Your task to perform on an android device: Open calendar and show me the fourth week of next month Image 0: 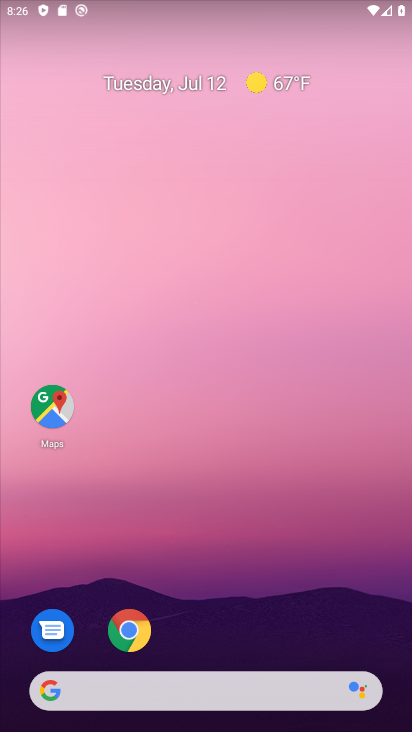
Step 0: drag from (269, 624) to (208, 185)
Your task to perform on an android device: Open calendar and show me the fourth week of next month Image 1: 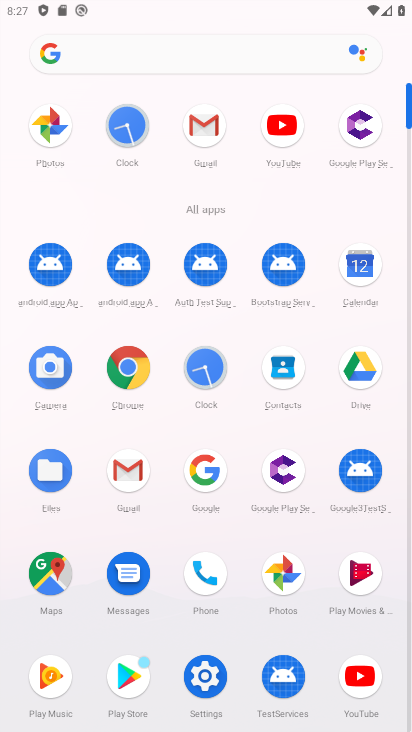
Step 1: click (357, 264)
Your task to perform on an android device: Open calendar and show me the fourth week of next month Image 2: 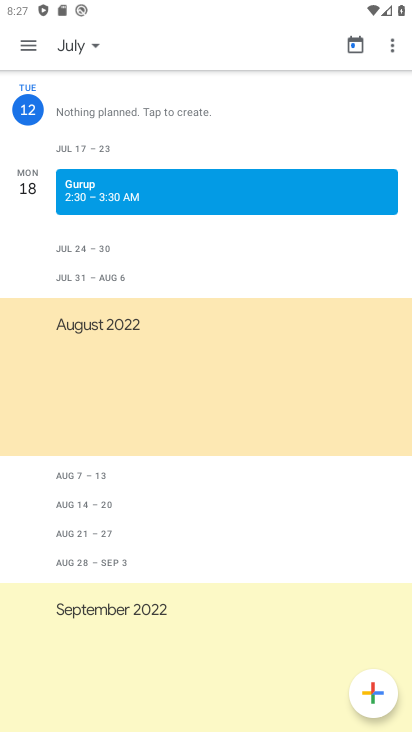
Step 2: click (26, 53)
Your task to perform on an android device: Open calendar and show me the fourth week of next month Image 3: 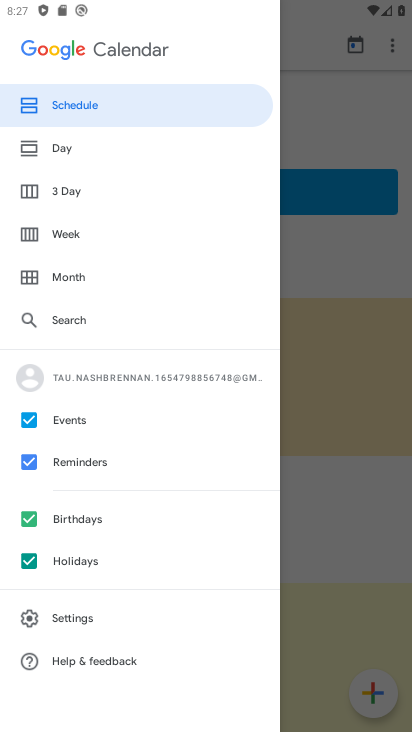
Step 3: click (65, 228)
Your task to perform on an android device: Open calendar and show me the fourth week of next month Image 4: 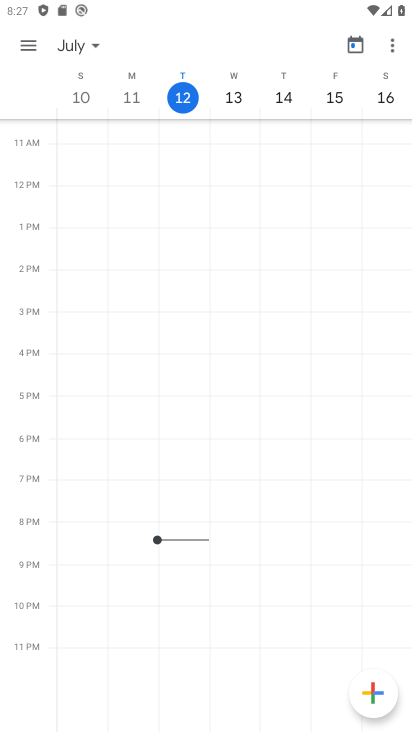
Step 4: drag from (402, 293) to (101, 288)
Your task to perform on an android device: Open calendar and show me the fourth week of next month Image 5: 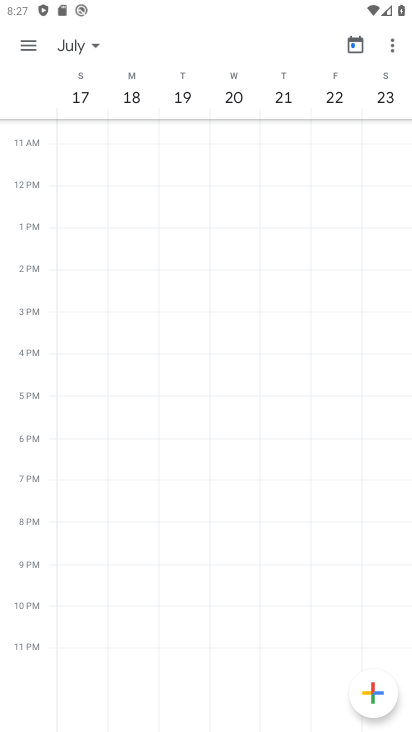
Step 5: click (81, 41)
Your task to perform on an android device: Open calendar and show me the fourth week of next month Image 6: 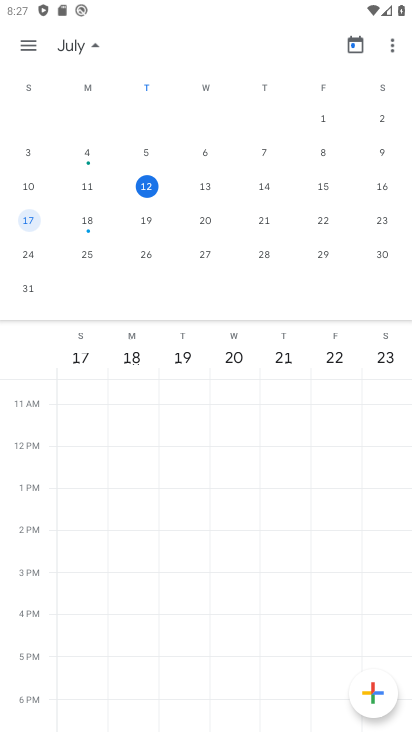
Step 6: drag from (399, 204) to (65, 201)
Your task to perform on an android device: Open calendar and show me the fourth week of next month Image 7: 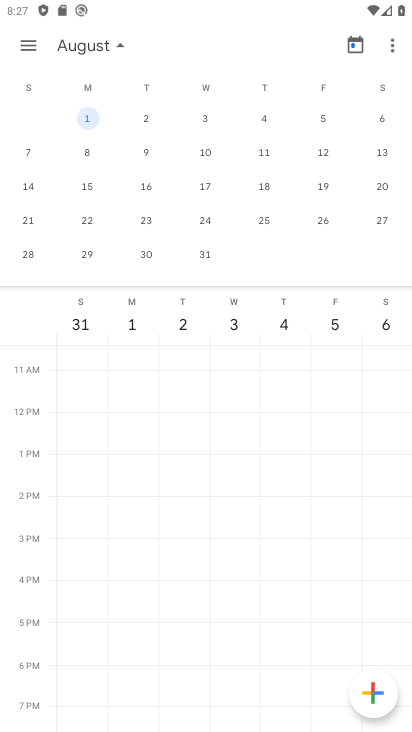
Step 7: click (206, 216)
Your task to perform on an android device: Open calendar and show me the fourth week of next month Image 8: 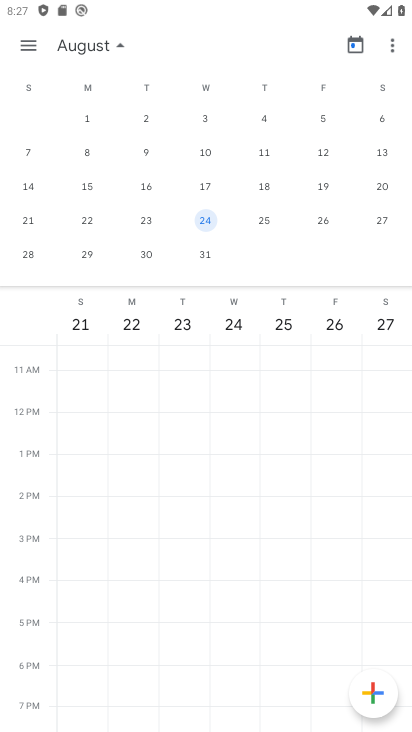
Step 8: task complete